Your task to perform on an android device: change the upload size in google photos Image 0: 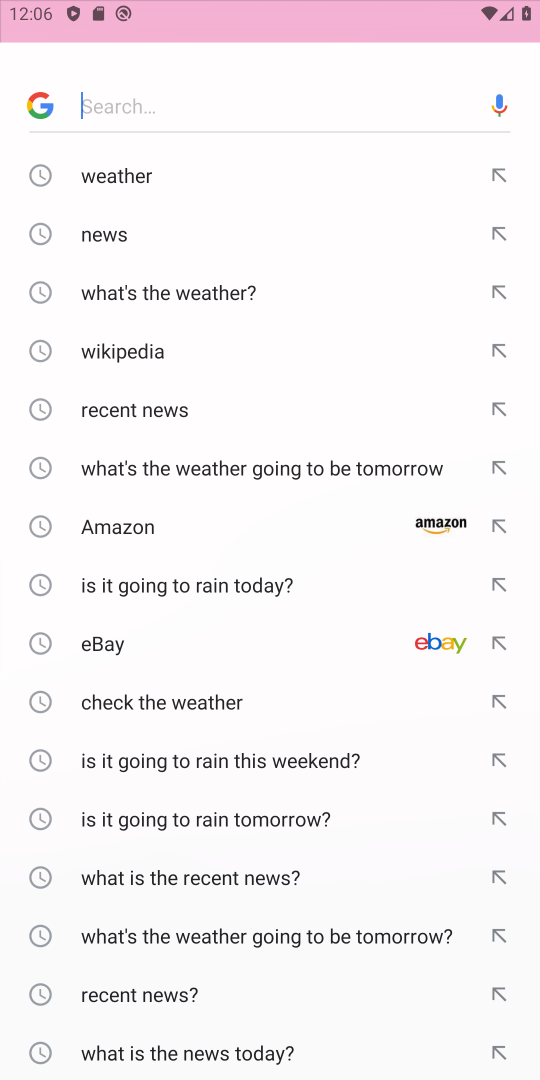
Step 0: press home button
Your task to perform on an android device: change the upload size in google photos Image 1: 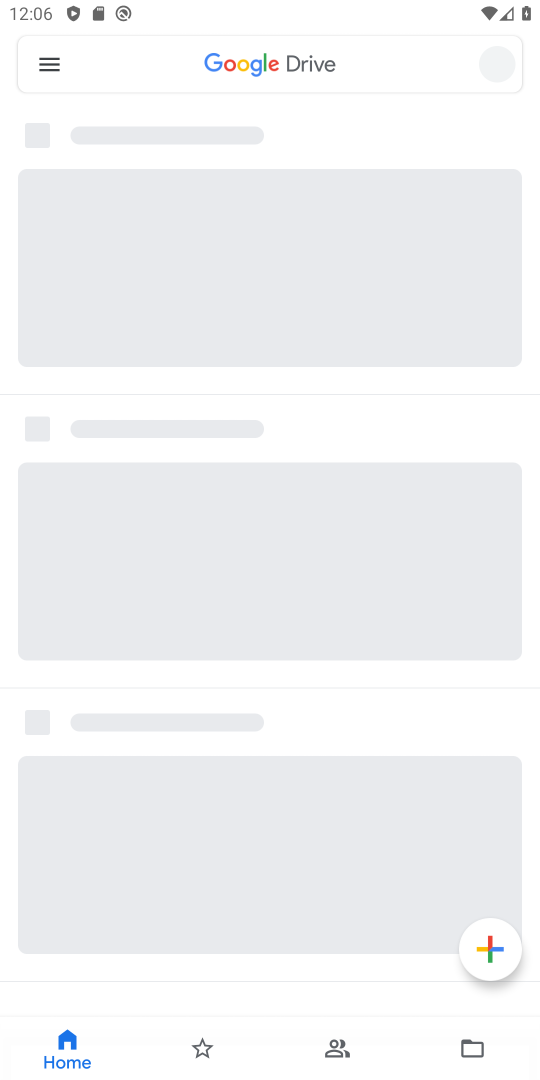
Step 1: press back button
Your task to perform on an android device: change the upload size in google photos Image 2: 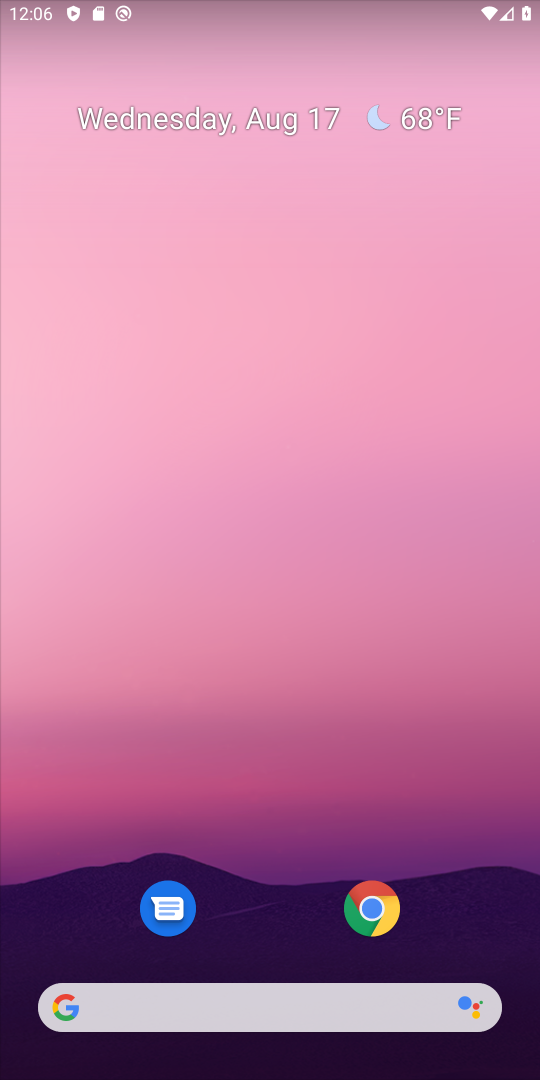
Step 2: drag from (255, 807) to (255, 288)
Your task to perform on an android device: change the upload size in google photos Image 3: 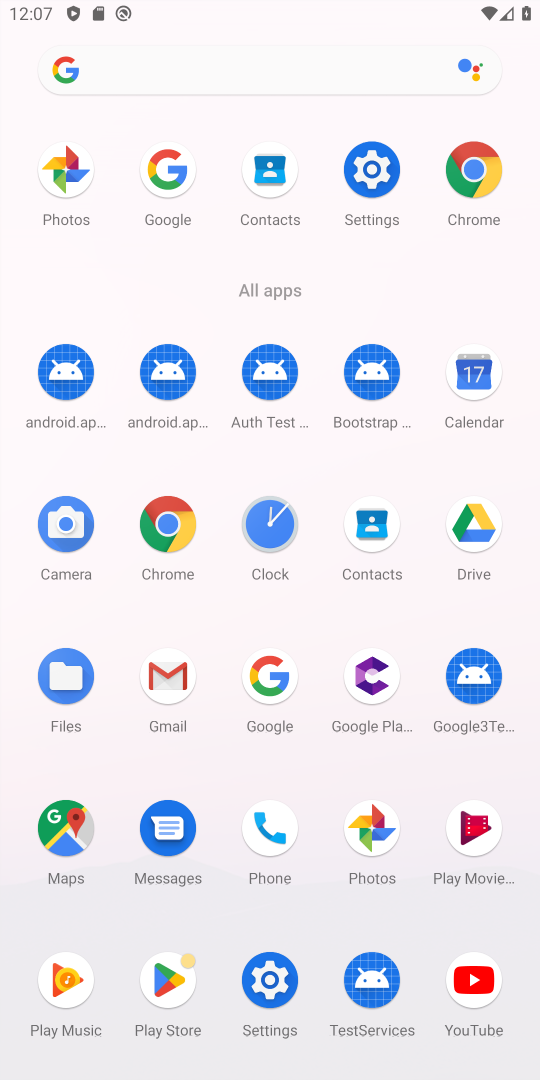
Step 3: click (369, 819)
Your task to perform on an android device: change the upload size in google photos Image 4: 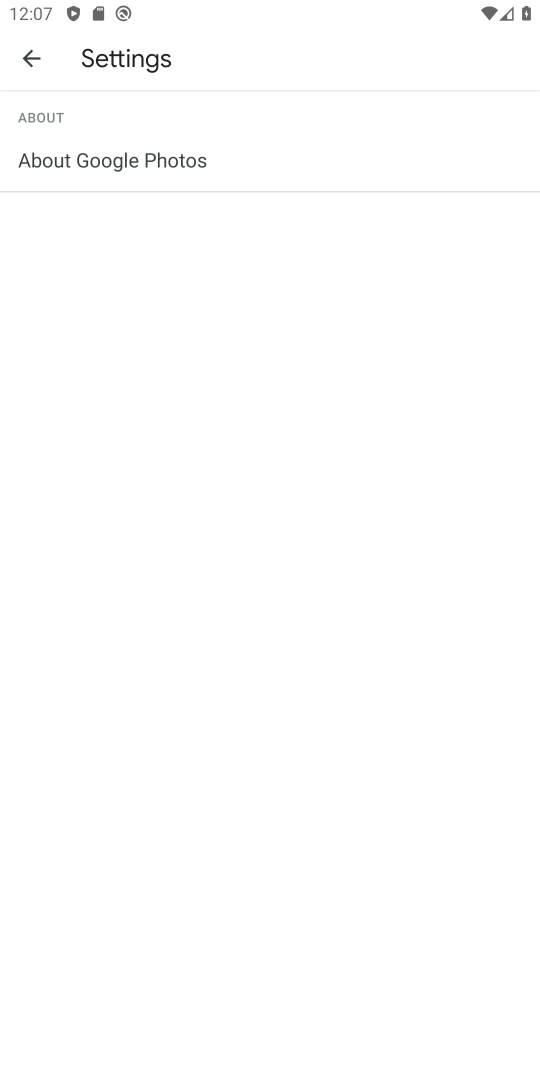
Step 4: click (34, 71)
Your task to perform on an android device: change the upload size in google photos Image 5: 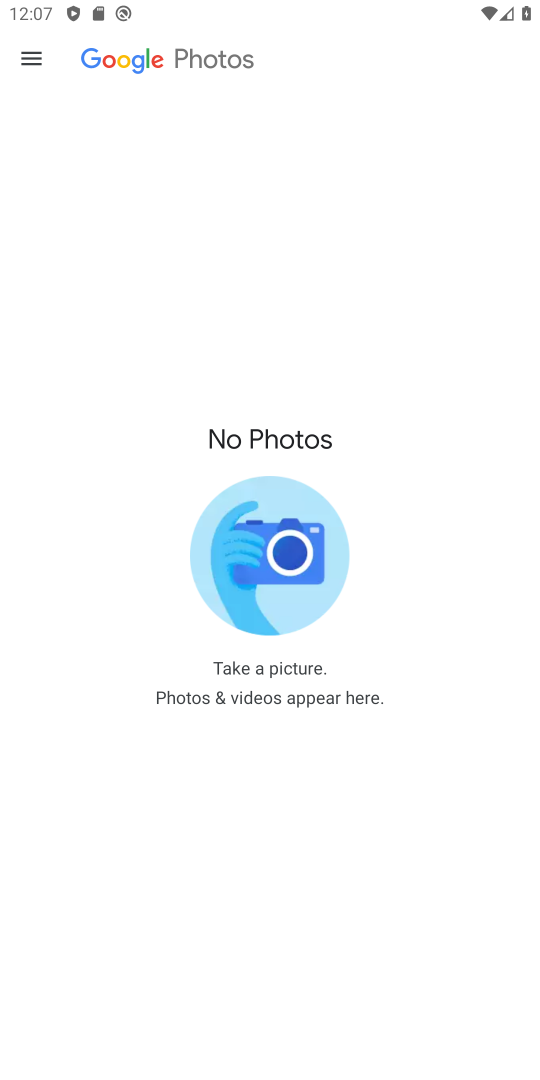
Step 5: click (34, 71)
Your task to perform on an android device: change the upload size in google photos Image 6: 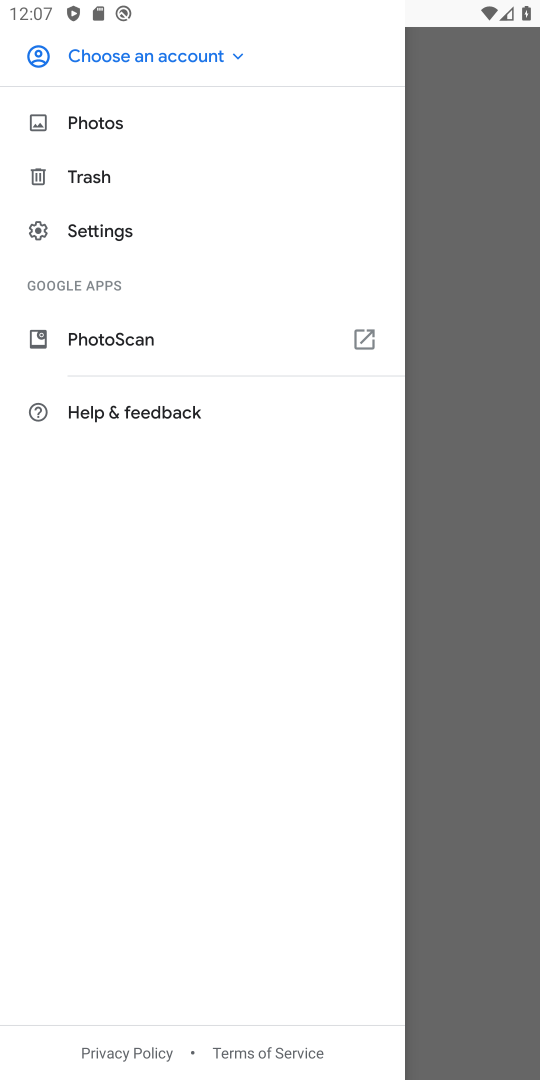
Step 6: click (90, 237)
Your task to perform on an android device: change the upload size in google photos Image 7: 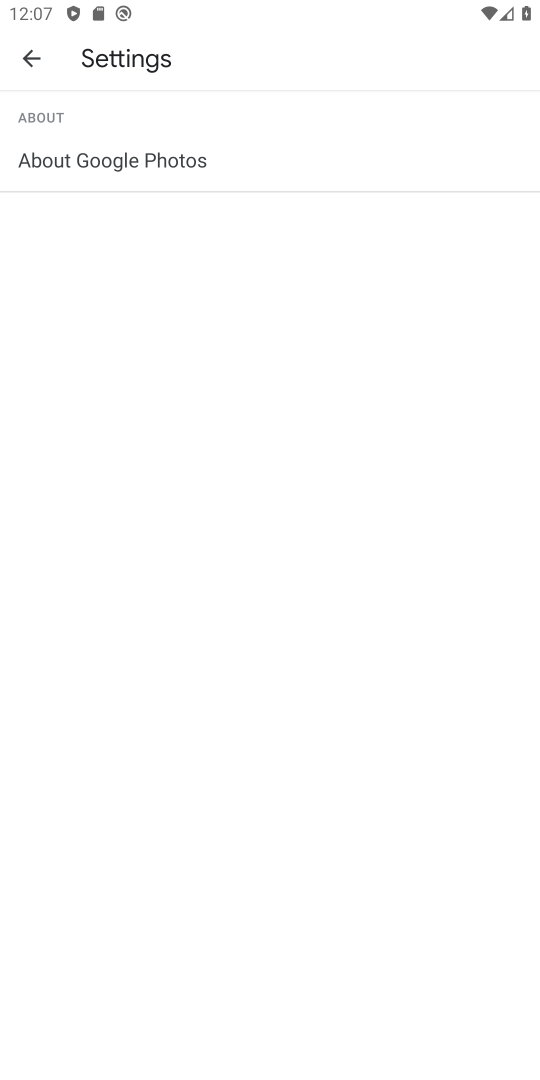
Step 7: click (38, 50)
Your task to perform on an android device: change the upload size in google photos Image 8: 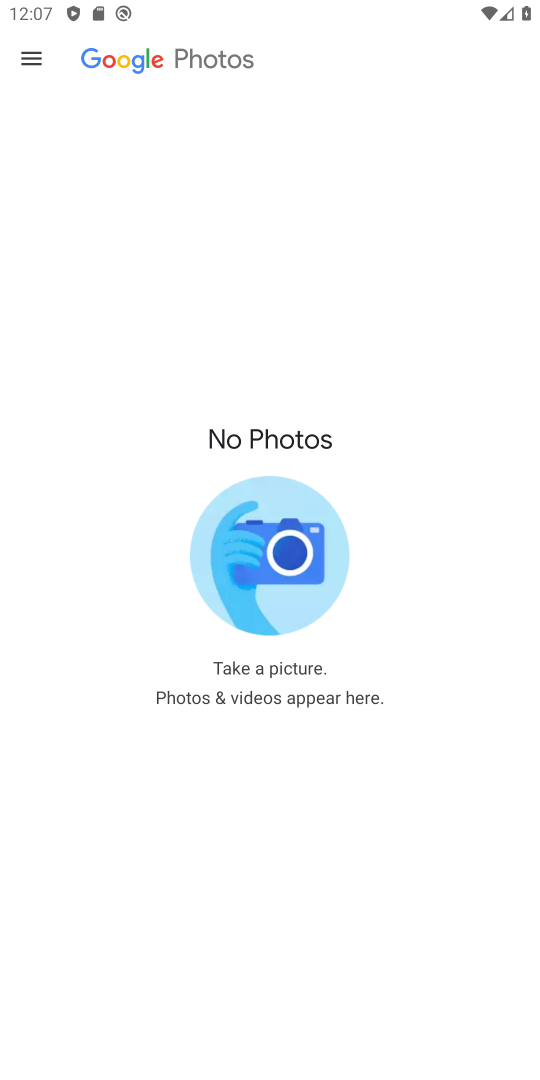
Step 8: click (28, 55)
Your task to perform on an android device: change the upload size in google photos Image 9: 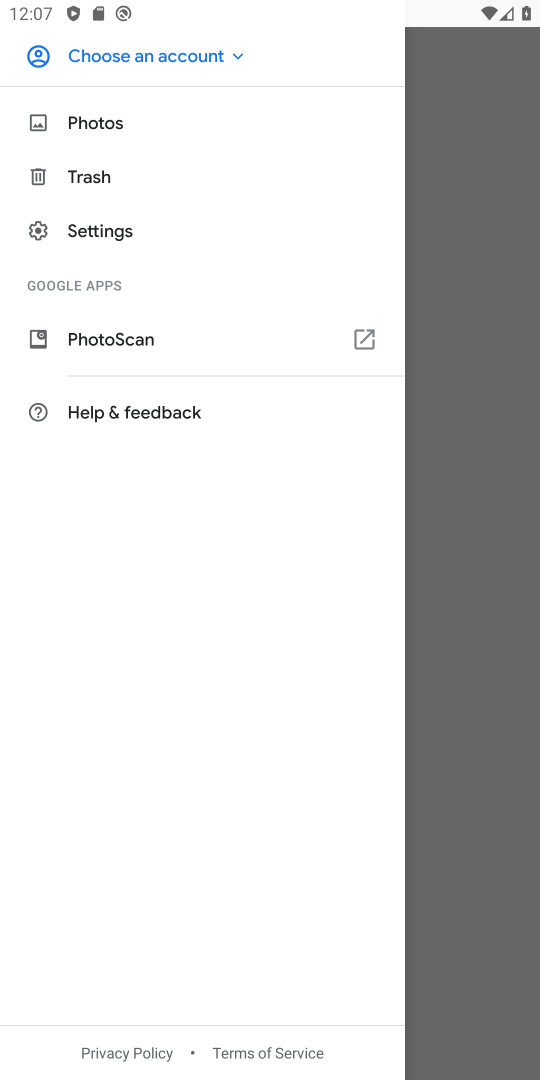
Step 9: click (176, 59)
Your task to perform on an android device: change the upload size in google photos Image 10: 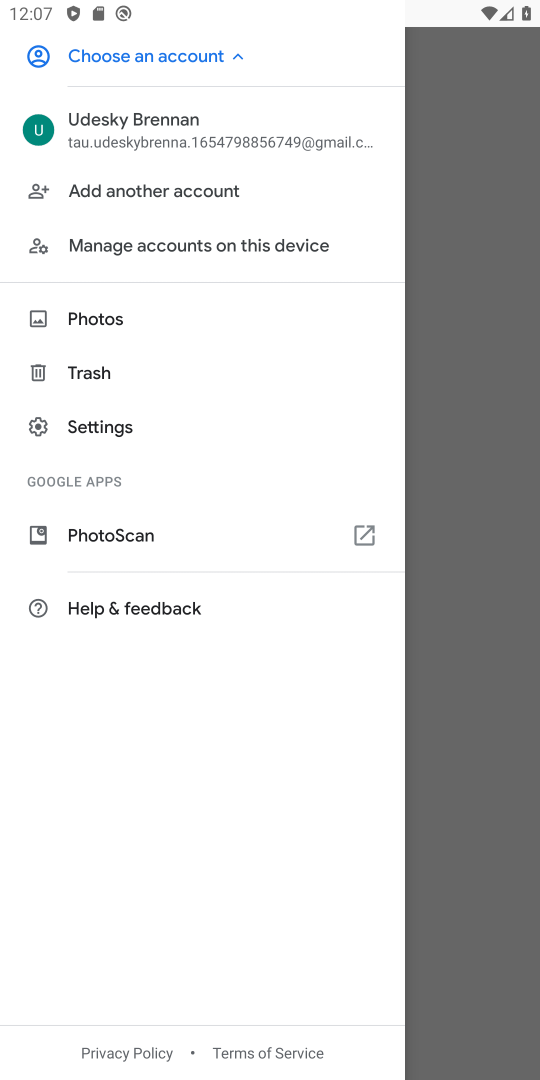
Step 10: click (155, 146)
Your task to perform on an android device: change the upload size in google photos Image 11: 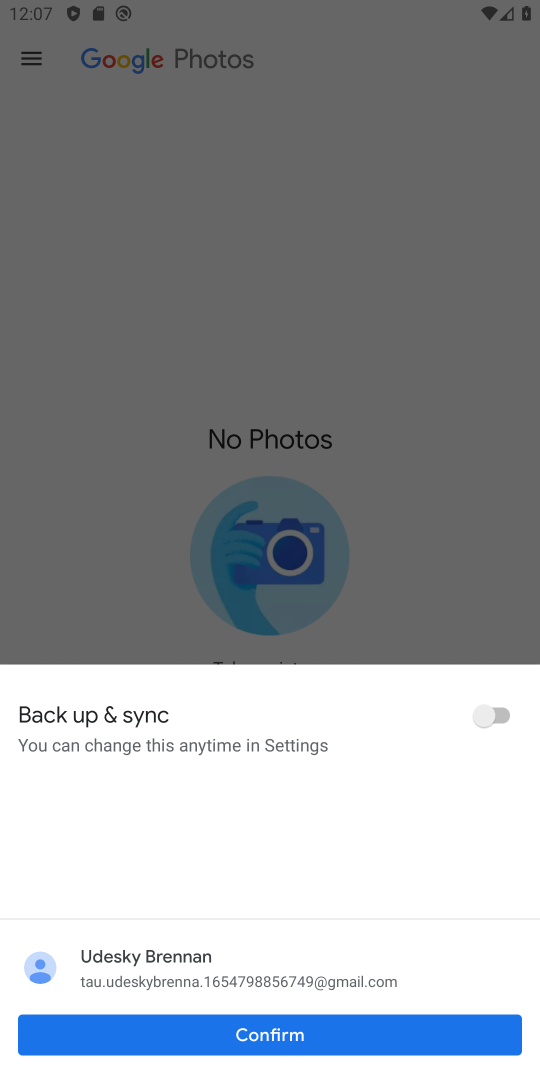
Step 11: click (322, 1018)
Your task to perform on an android device: change the upload size in google photos Image 12: 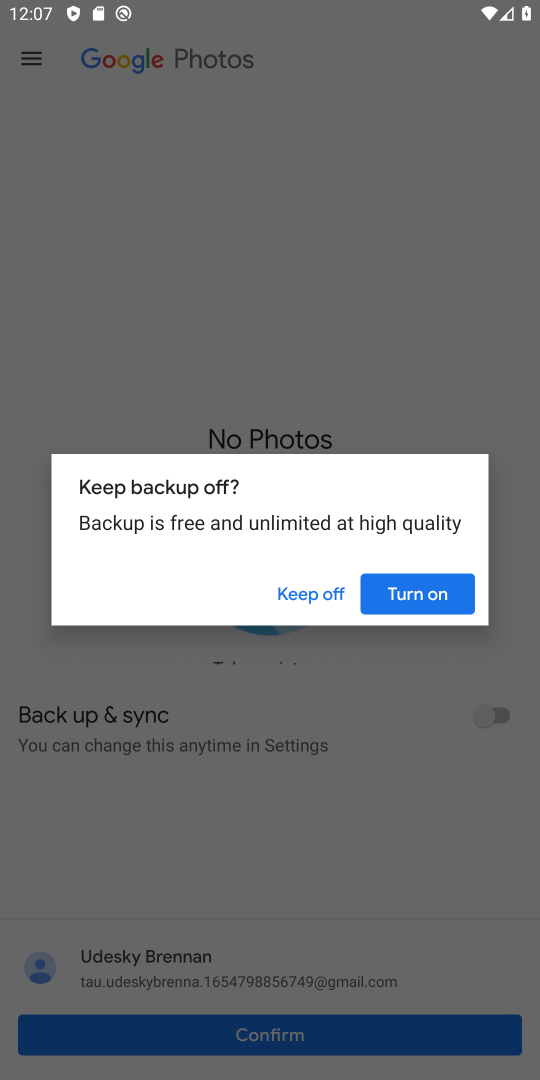
Step 12: click (418, 592)
Your task to perform on an android device: change the upload size in google photos Image 13: 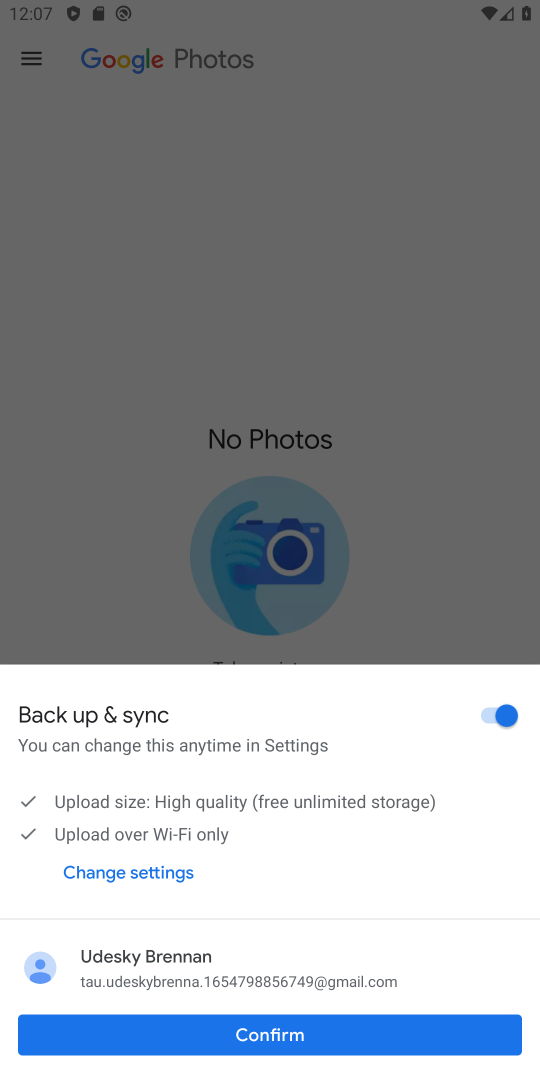
Step 13: click (273, 1038)
Your task to perform on an android device: change the upload size in google photos Image 14: 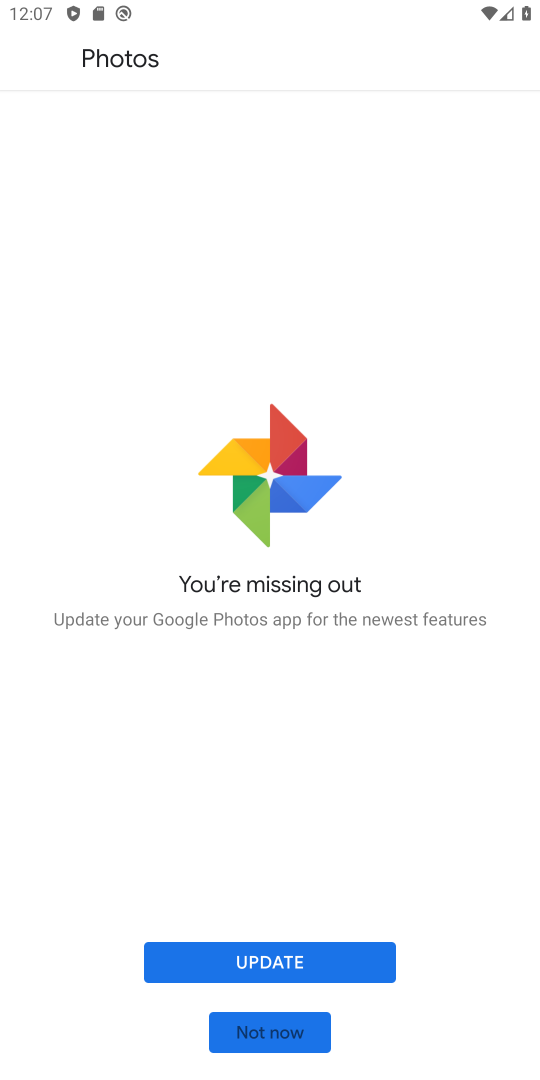
Step 14: click (296, 1038)
Your task to perform on an android device: change the upload size in google photos Image 15: 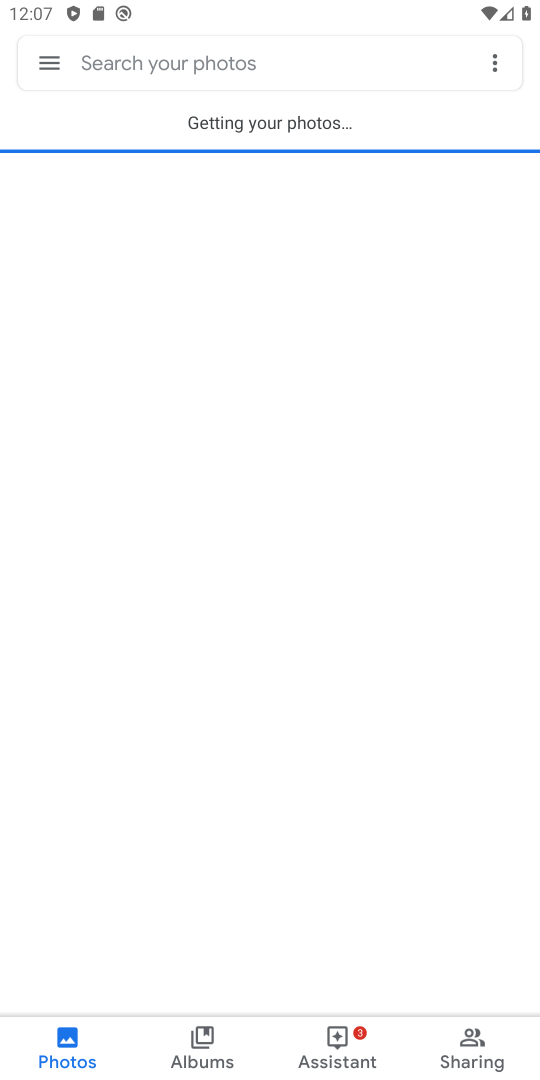
Step 15: click (62, 63)
Your task to perform on an android device: change the upload size in google photos Image 16: 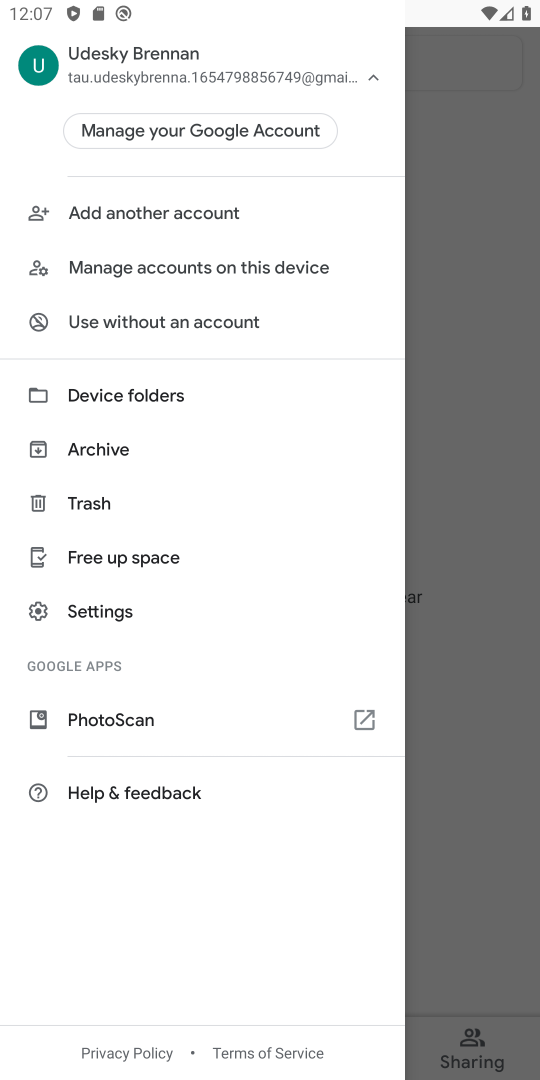
Step 16: click (80, 619)
Your task to perform on an android device: change the upload size in google photos Image 17: 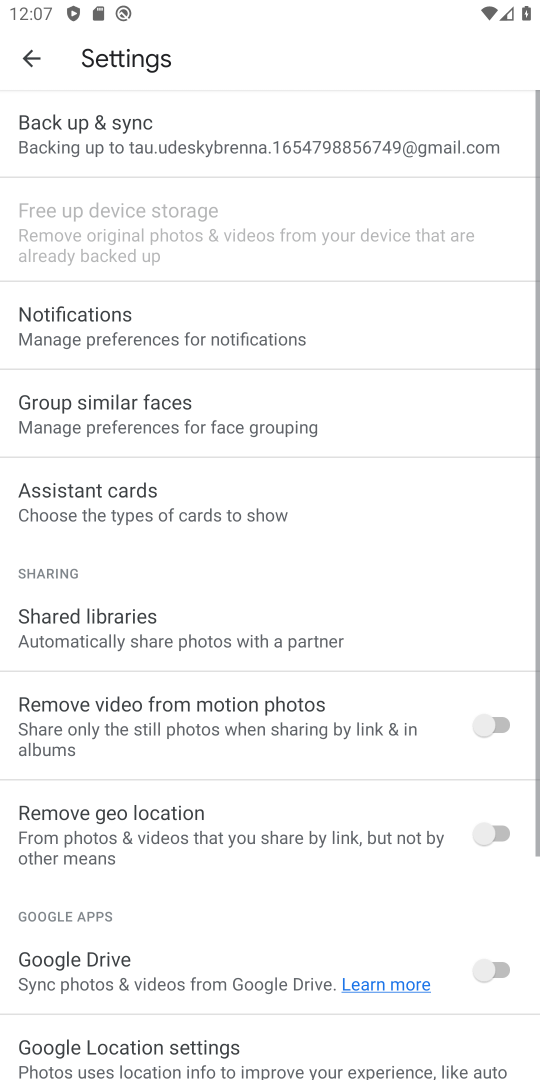
Step 17: click (176, 137)
Your task to perform on an android device: change the upload size in google photos Image 18: 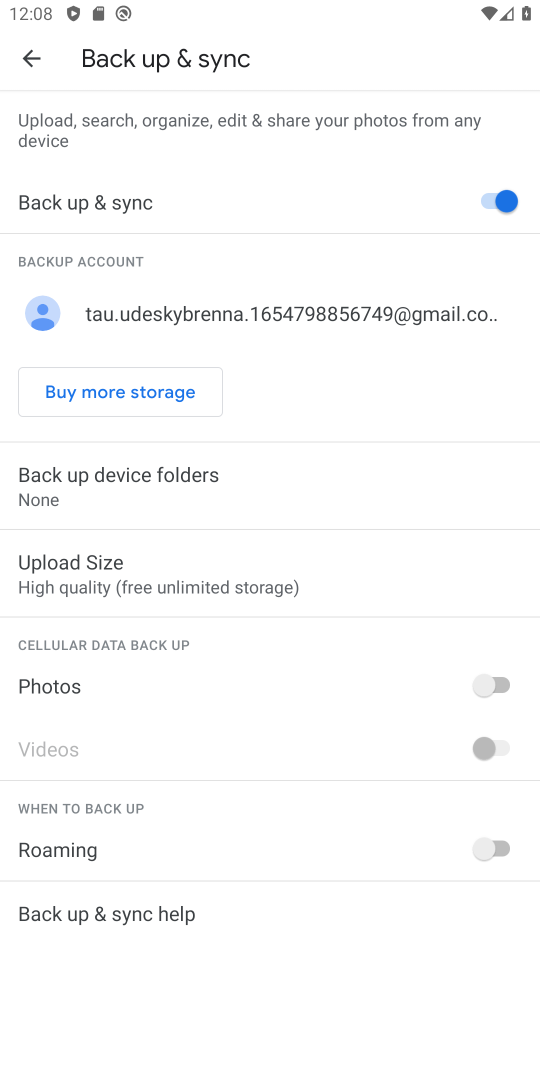
Step 18: click (108, 599)
Your task to perform on an android device: change the upload size in google photos Image 19: 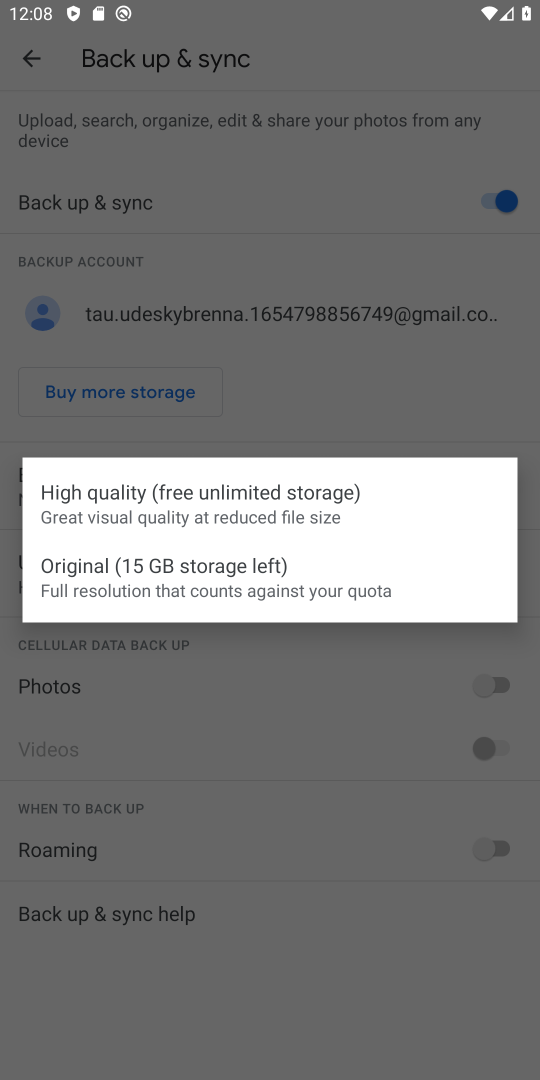
Step 19: click (137, 551)
Your task to perform on an android device: change the upload size in google photos Image 20: 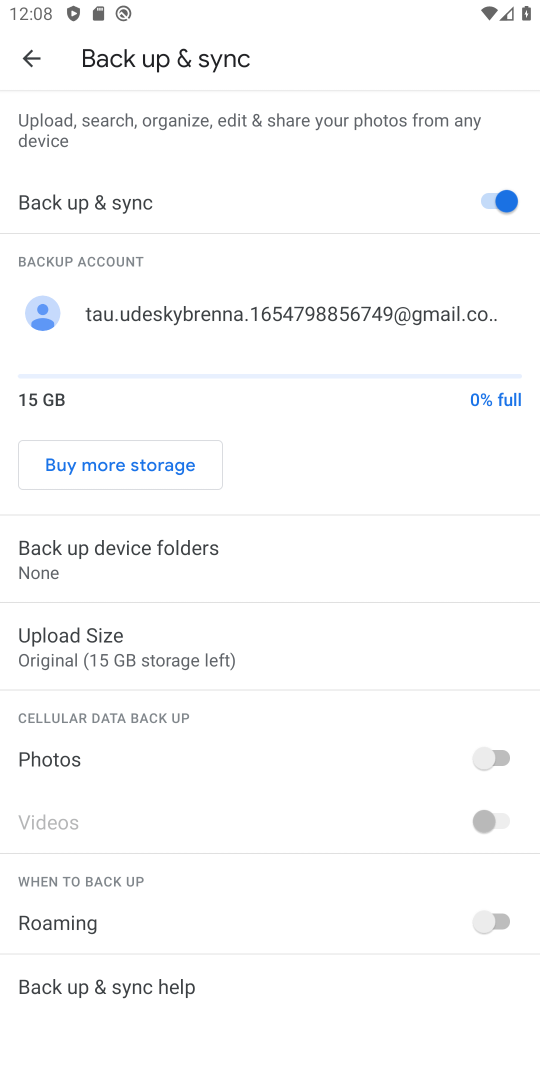
Step 20: task complete